Your task to perform on an android device: turn on improve location accuracy Image 0: 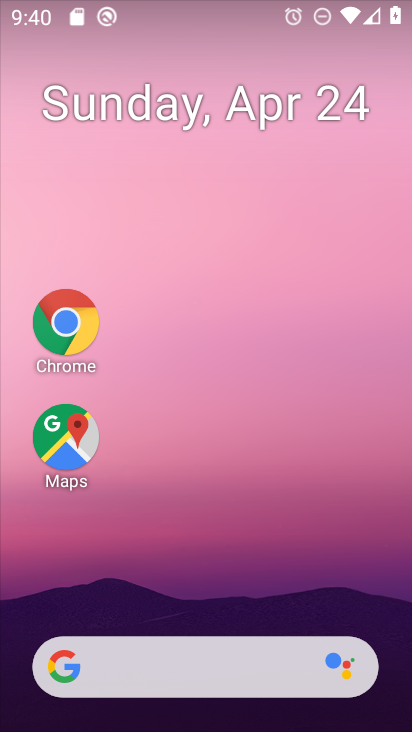
Step 0: drag from (206, 577) to (403, 32)
Your task to perform on an android device: turn on improve location accuracy Image 1: 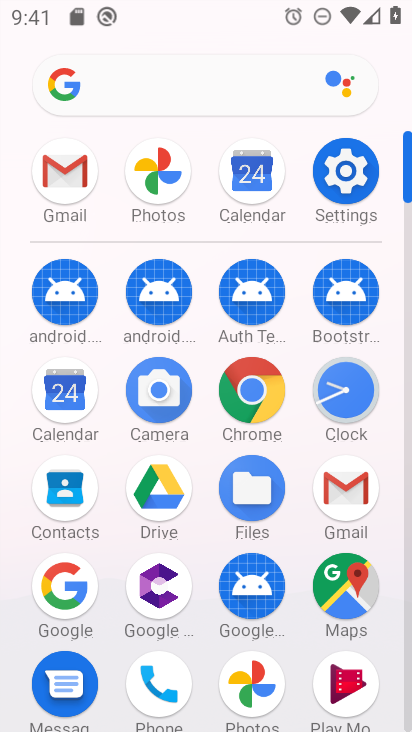
Step 1: click (328, 173)
Your task to perform on an android device: turn on improve location accuracy Image 2: 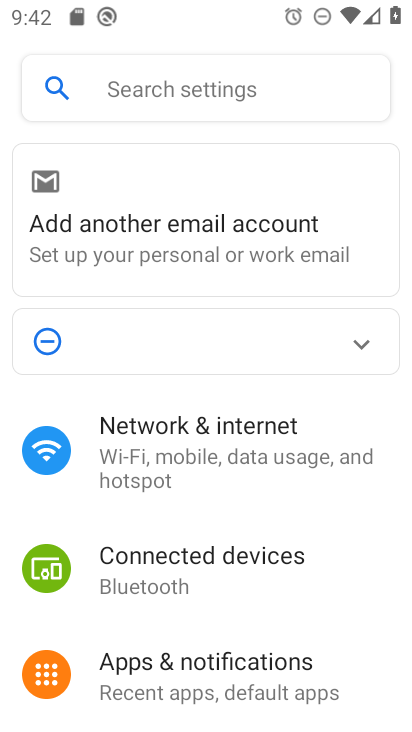
Step 2: drag from (236, 519) to (243, 97)
Your task to perform on an android device: turn on improve location accuracy Image 3: 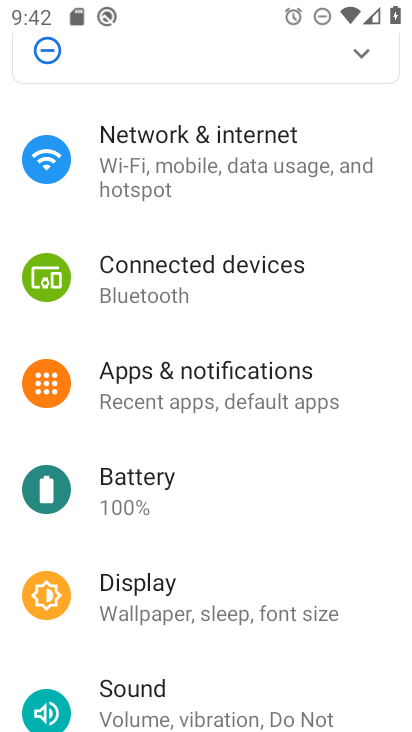
Step 3: drag from (197, 551) to (197, 91)
Your task to perform on an android device: turn on improve location accuracy Image 4: 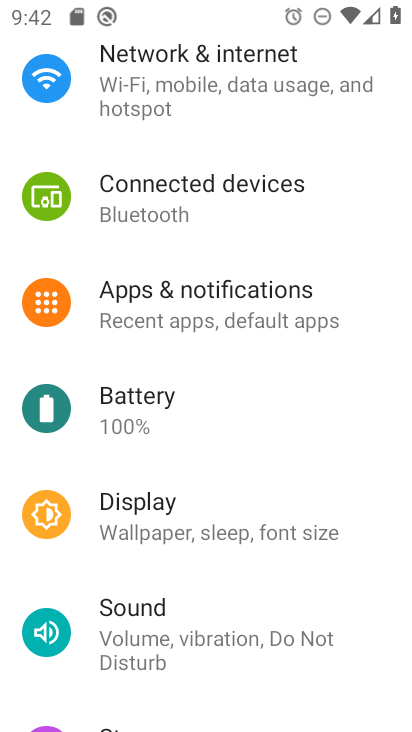
Step 4: drag from (217, 566) to (247, 113)
Your task to perform on an android device: turn on improve location accuracy Image 5: 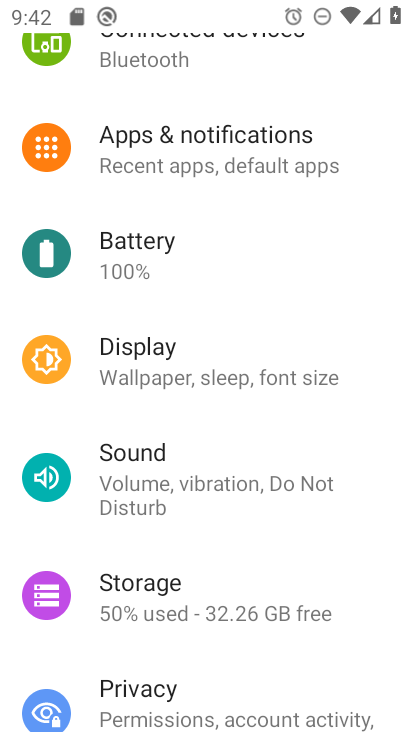
Step 5: drag from (198, 628) to (199, 165)
Your task to perform on an android device: turn on improve location accuracy Image 6: 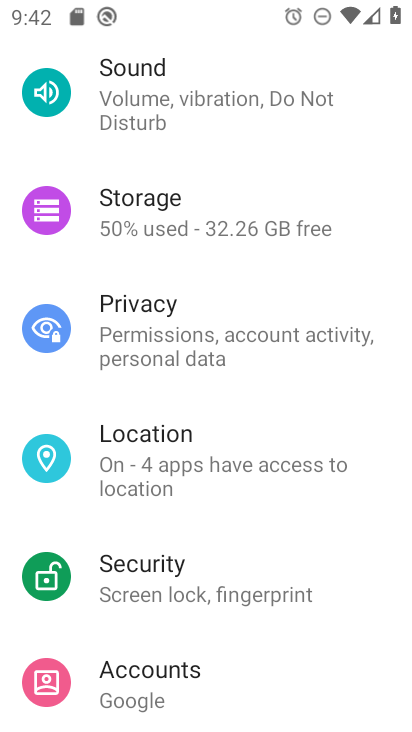
Step 6: click (145, 435)
Your task to perform on an android device: turn on improve location accuracy Image 7: 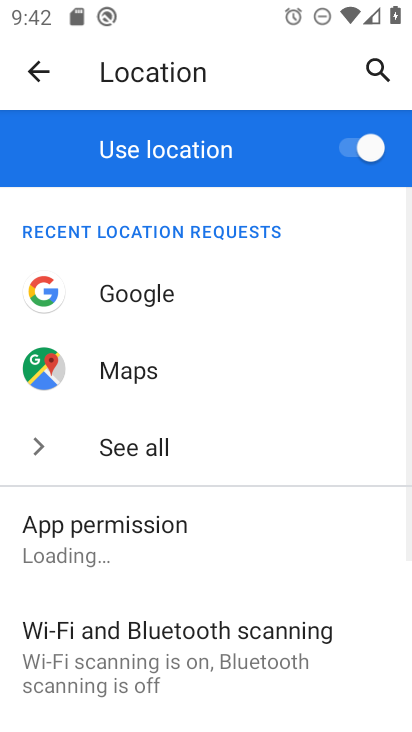
Step 7: drag from (223, 490) to (211, 112)
Your task to perform on an android device: turn on improve location accuracy Image 8: 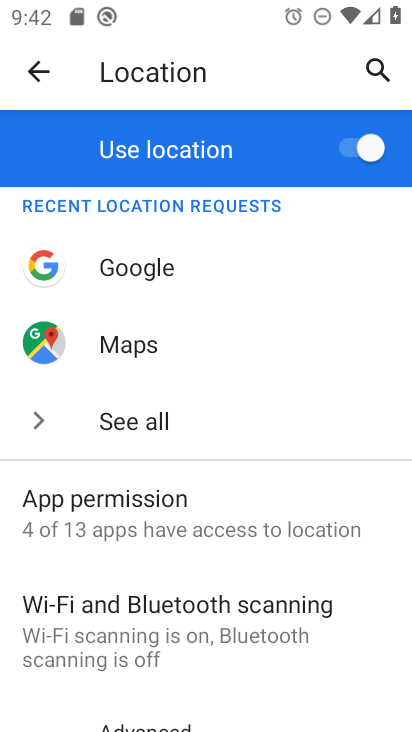
Step 8: drag from (173, 574) to (239, 57)
Your task to perform on an android device: turn on improve location accuracy Image 9: 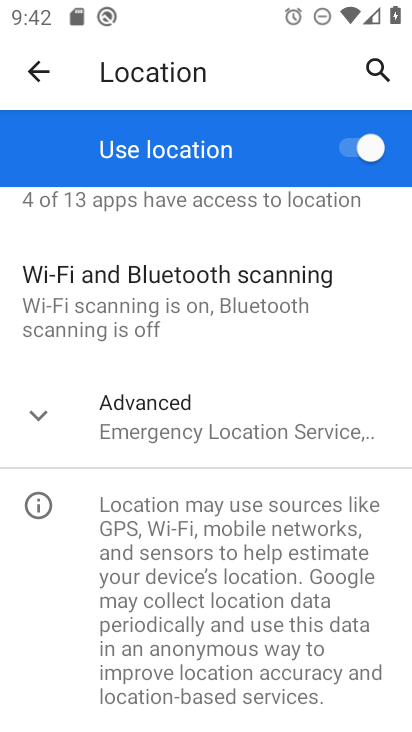
Step 9: click (37, 415)
Your task to perform on an android device: turn on improve location accuracy Image 10: 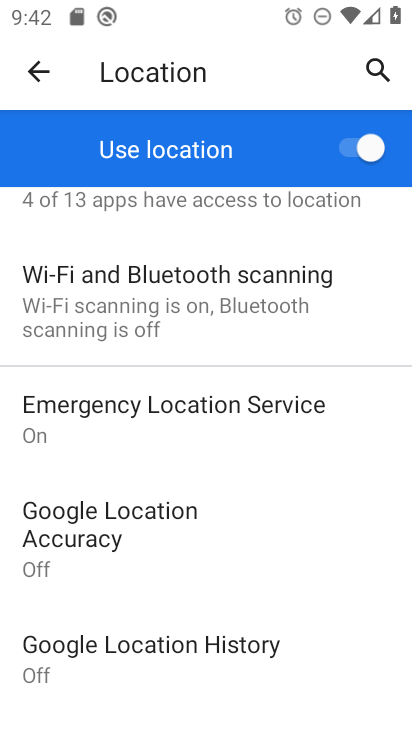
Step 10: click (91, 517)
Your task to perform on an android device: turn on improve location accuracy Image 11: 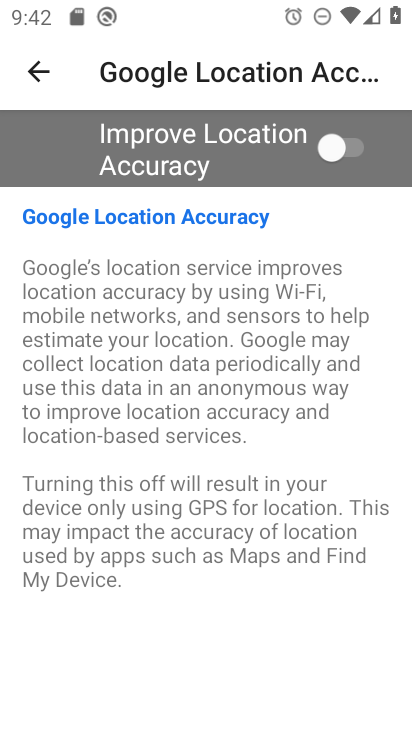
Step 11: click (327, 151)
Your task to perform on an android device: turn on improve location accuracy Image 12: 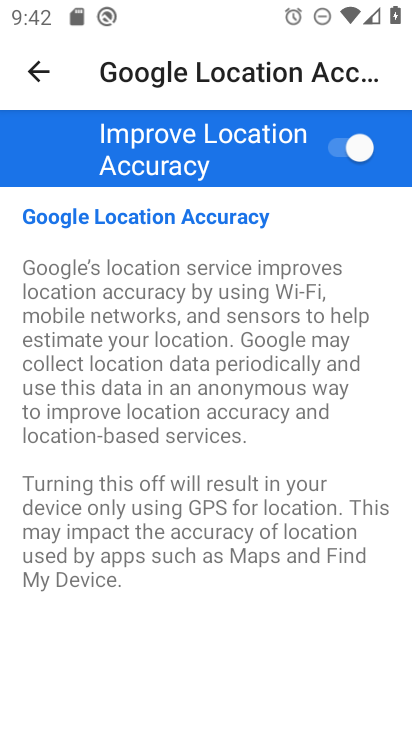
Step 12: task complete